Your task to perform on an android device: Open Youtube and go to "Your channel" Image 0: 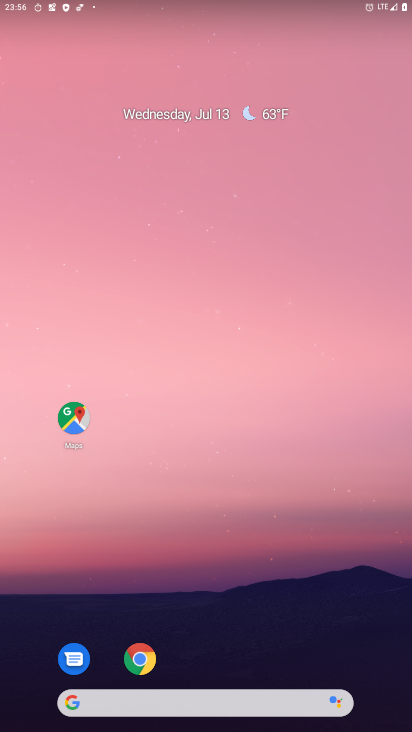
Step 0: drag from (303, 640) to (318, 182)
Your task to perform on an android device: Open Youtube and go to "Your channel" Image 1: 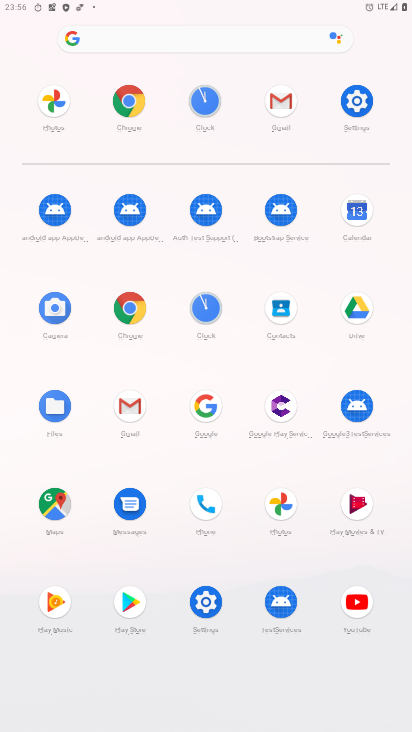
Step 1: click (357, 605)
Your task to perform on an android device: Open Youtube and go to "Your channel" Image 2: 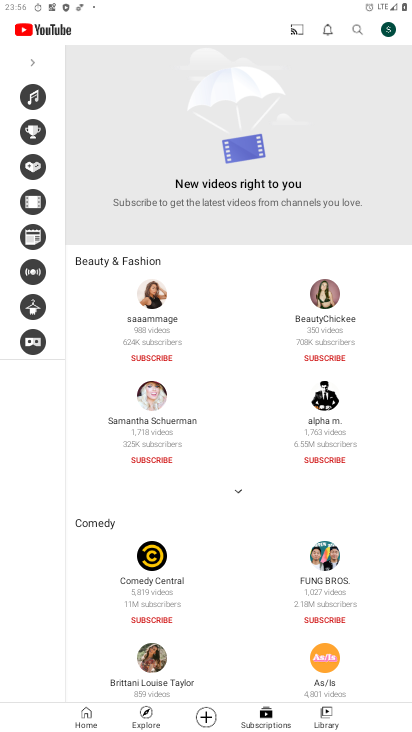
Step 2: click (392, 31)
Your task to perform on an android device: Open Youtube and go to "Your channel" Image 3: 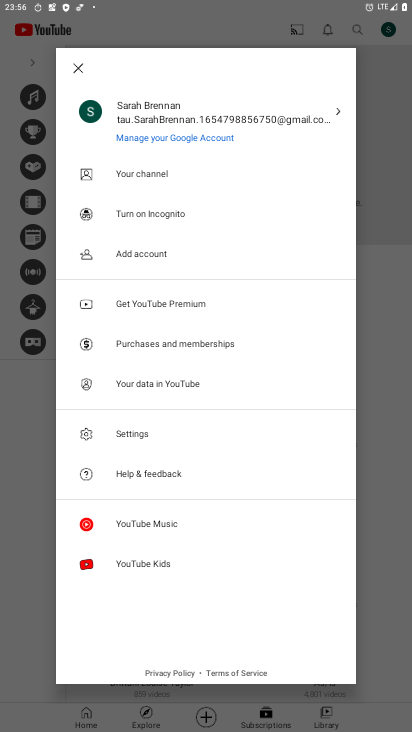
Step 3: click (144, 171)
Your task to perform on an android device: Open Youtube and go to "Your channel" Image 4: 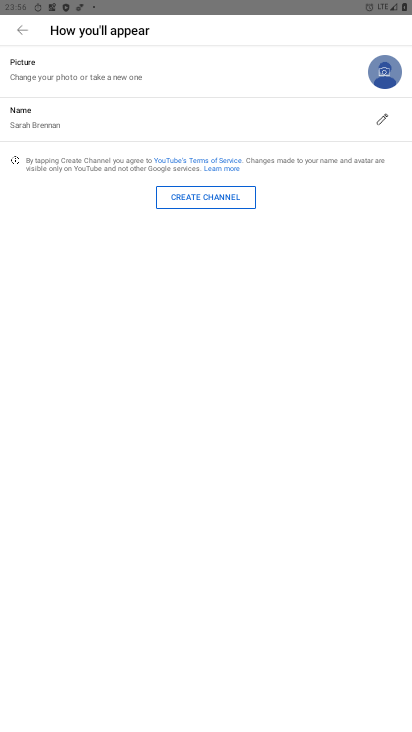
Step 4: task complete